Your task to perform on an android device: turn off translation in the chrome app Image 0: 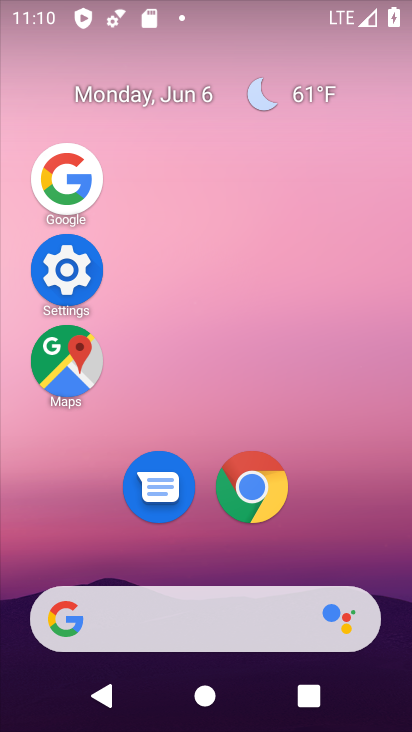
Step 0: click (264, 509)
Your task to perform on an android device: turn off translation in the chrome app Image 1: 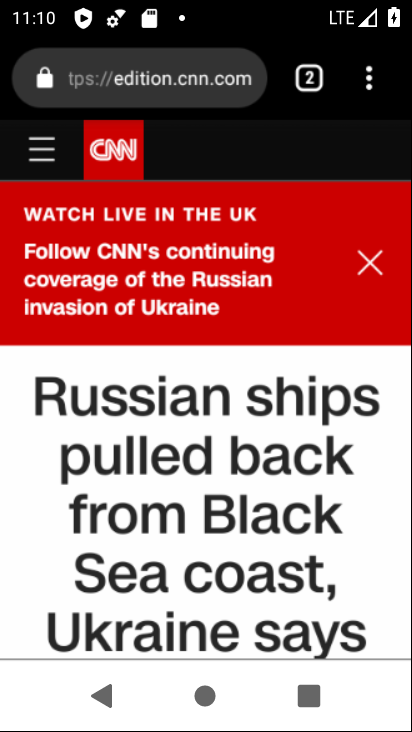
Step 1: click (361, 84)
Your task to perform on an android device: turn off translation in the chrome app Image 2: 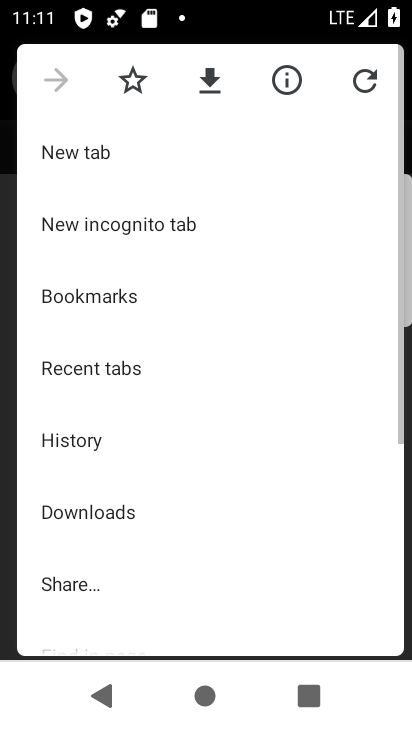
Step 2: drag from (182, 465) to (200, 168)
Your task to perform on an android device: turn off translation in the chrome app Image 3: 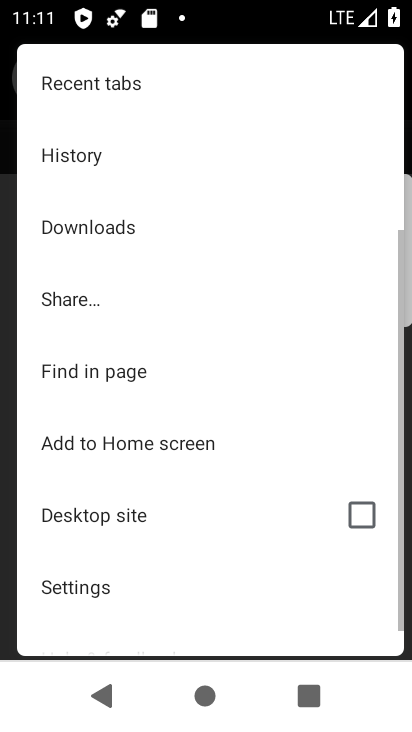
Step 3: click (102, 608)
Your task to perform on an android device: turn off translation in the chrome app Image 4: 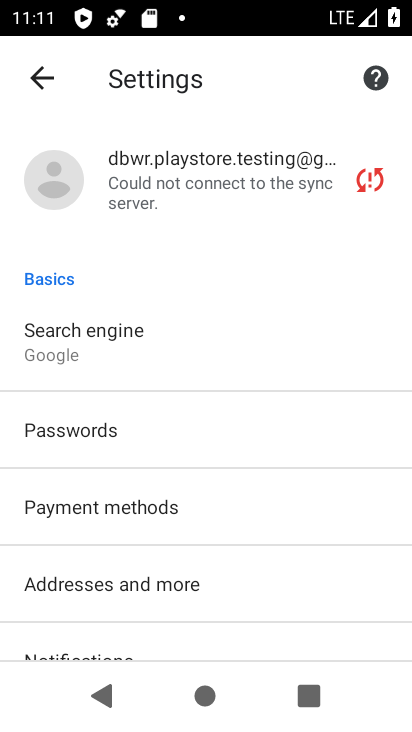
Step 4: drag from (274, 484) to (270, 135)
Your task to perform on an android device: turn off translation in the chrome app Image 5: 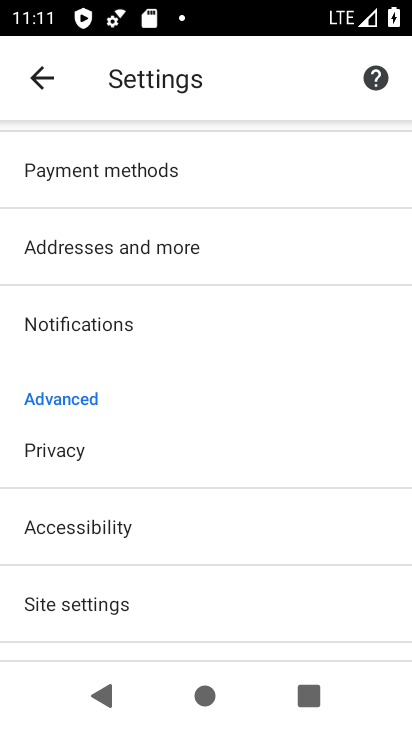
Step 5: drag from (251, 477) to (227, 137)
Your task to perform on an android device: turn off translation in the chrome app Image 6: 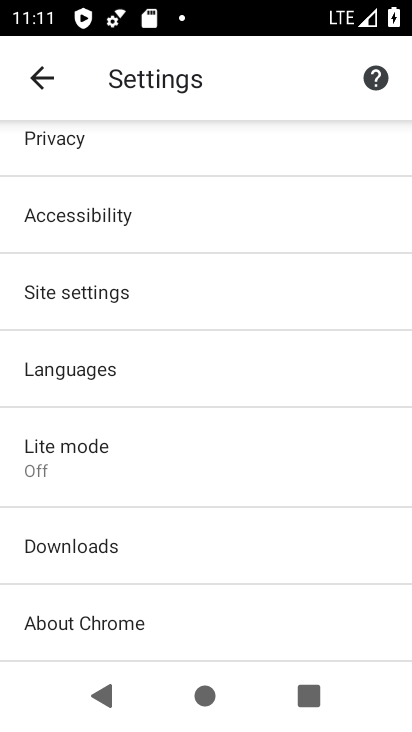
Step 6: click (222, 393)
Your task to perform on an android device: turn off translation in the chrome app Image 7: 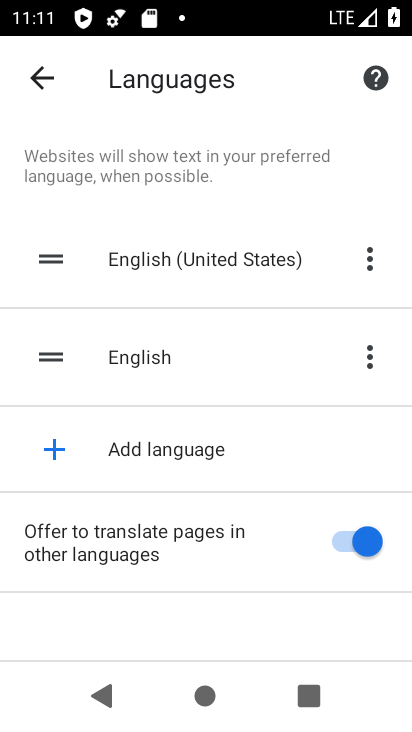
Step 7: click (344, 545)
Your task to perform on an android device: turn off translation in the chrome app Image 8: 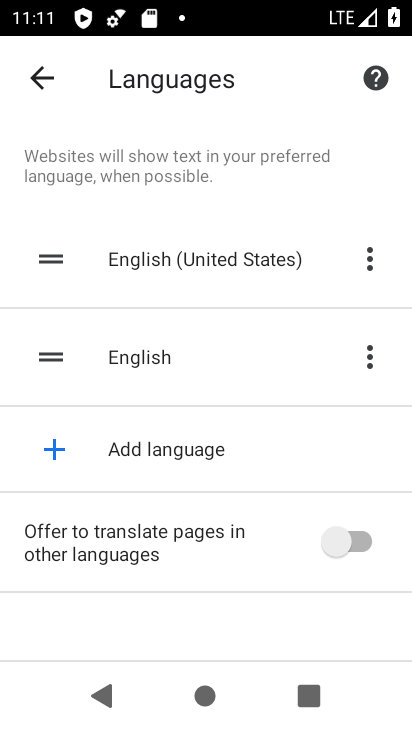
Step 8: task complete